Your task to perform on an android device: Search for Italian restaurants on Maps Image 0: 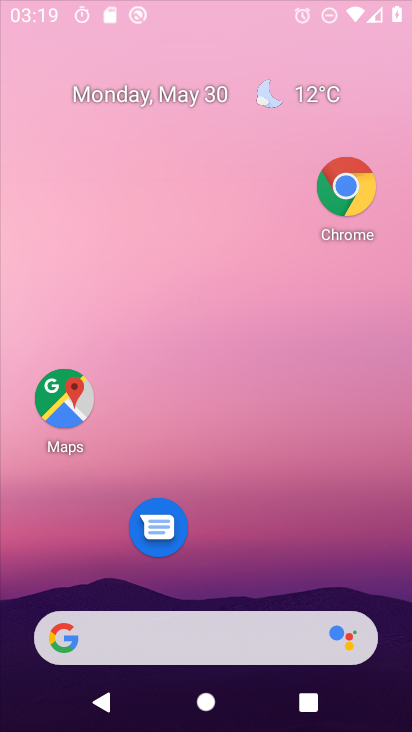
Step 0: click (367, 21)
Your task to perform on an android device: Search for Italian restaurants on Maps Image 1: 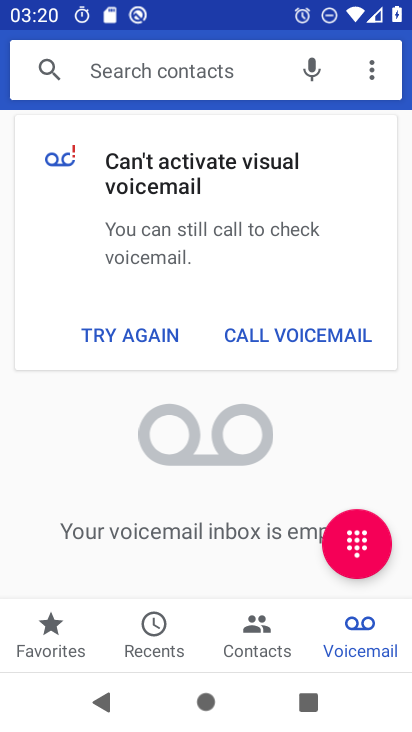
Step 1: click (213, 534)
Your task to perform on an android device: Search for Italian restaurants on Maps Image 2: 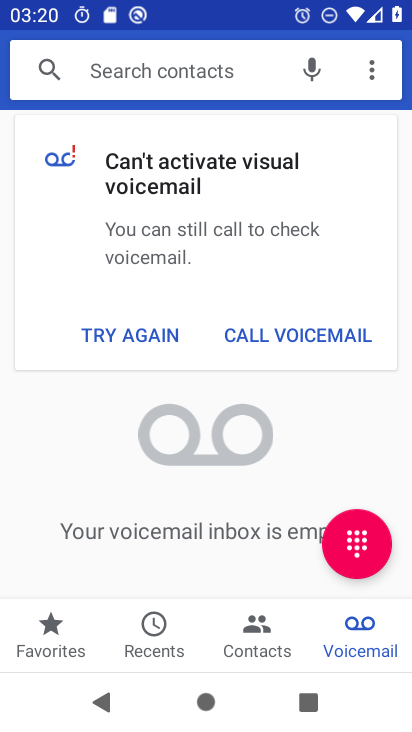
Step 2: press home button
Your task to perform on an android device: Search for Italian restaurants on Maps Image 3: 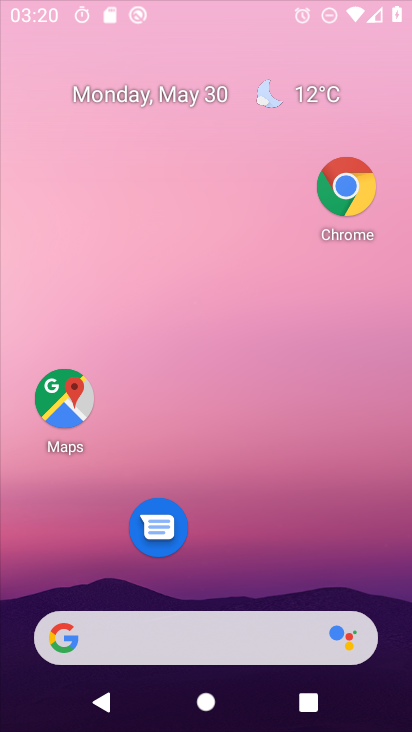
Step 3: drag from (124, 573) to (171, 187)
Your task to perform on an android device: Search for Italian restaurants on Maps Image 4: 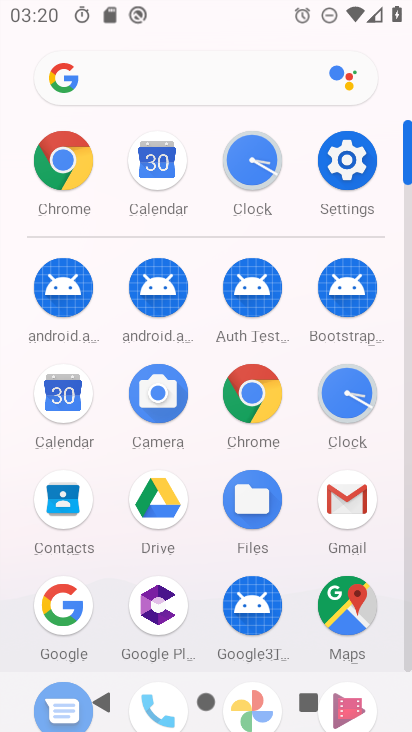
Step 4: click (358, 599)
Your task to perform on an android device: Search for Italian restaurants on Maps Image 5: 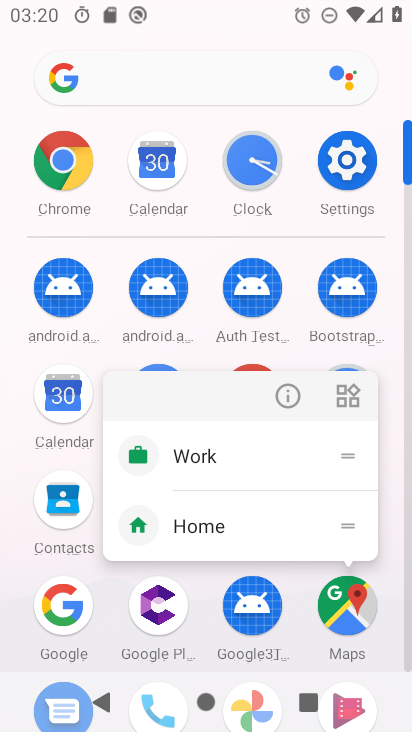
Step 5: click (296, 406)
Your task to perform on an android device: Search for Italian restaurants on Maps Image 6: 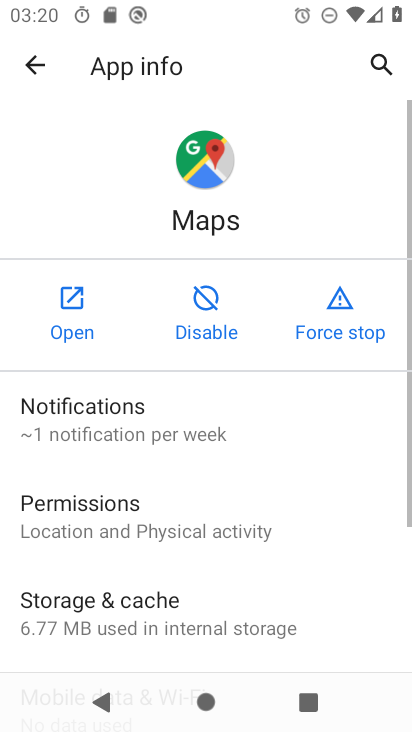
Step 6: click (53, 315)
Your task to perform on an android device: Search for Italian restaurants on Maps Image 7: 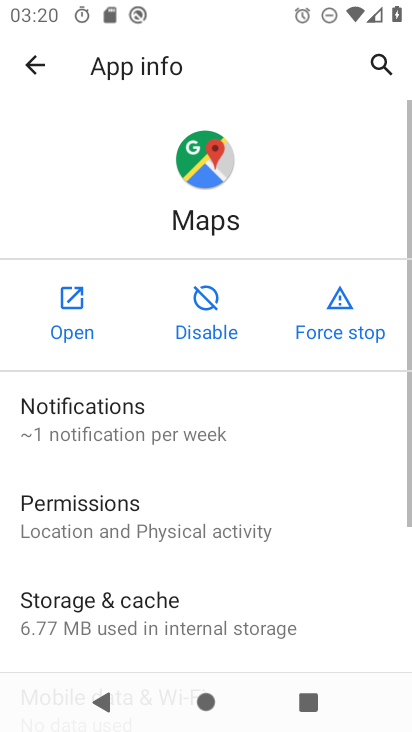
Step 7: click (53, 315)
Your task to perform on an android device: Search for Italian restaurants on Maps Image 8: 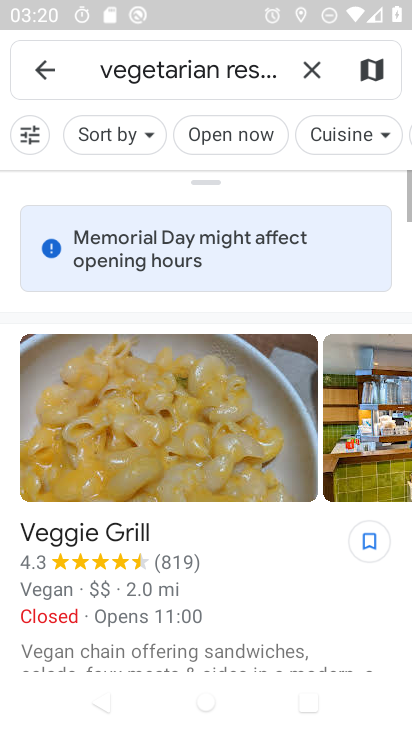
Step 8: click (308, 72)
Your task to perform on an android device: Search for Italian restaurants on Maps Image 9: 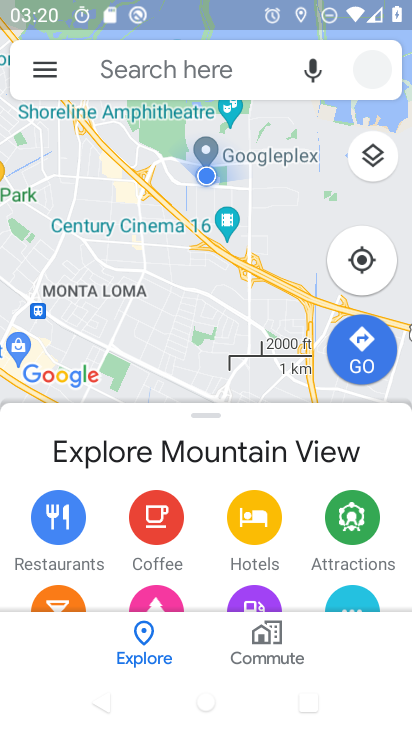
Step 9: click (138, 73)
Your task to perform on an android device: Search for Italian restaurants on Maps Image 10: 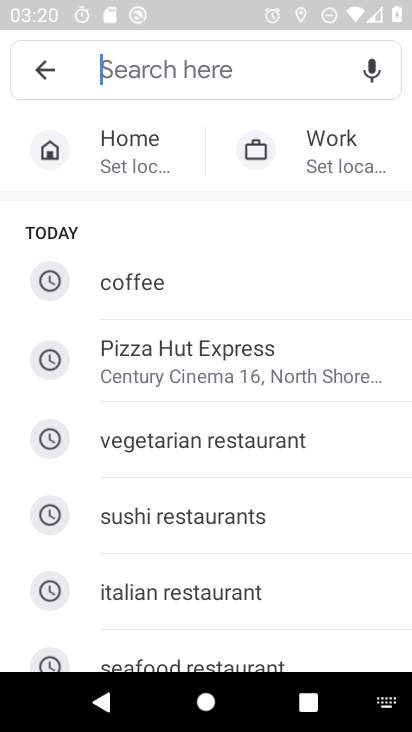
Step 10: click (165, 588)
Your task to perform on an android device: Search for Italian restaurants on Maps Image 11: 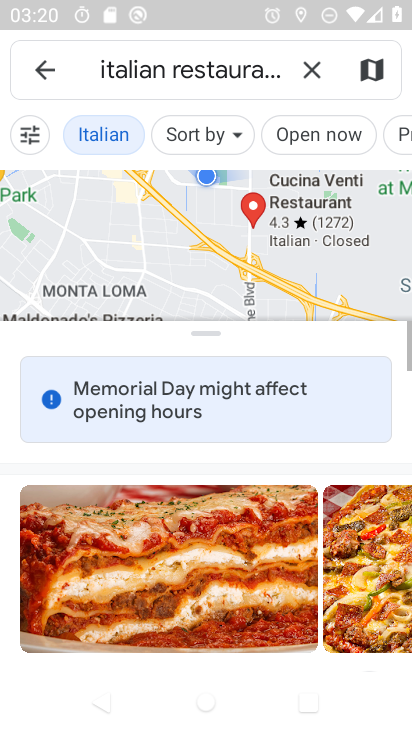
Step 11: task complete